Your task to perform on an android device: What's the weather today? Image 0: 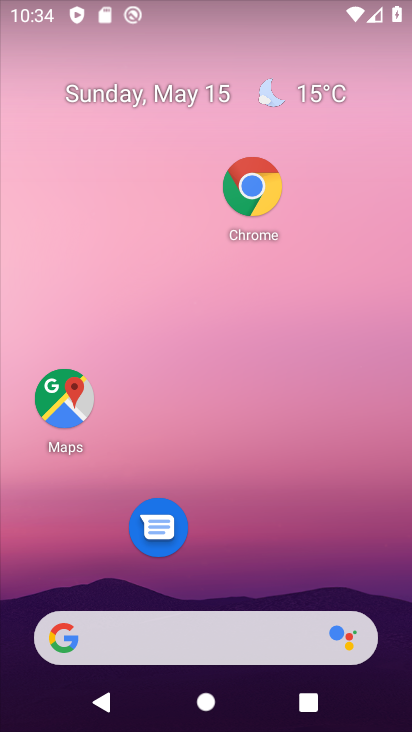
Step 0: click (209, 638)
Your task to perform on an android device: What's the weather today? Image 1: 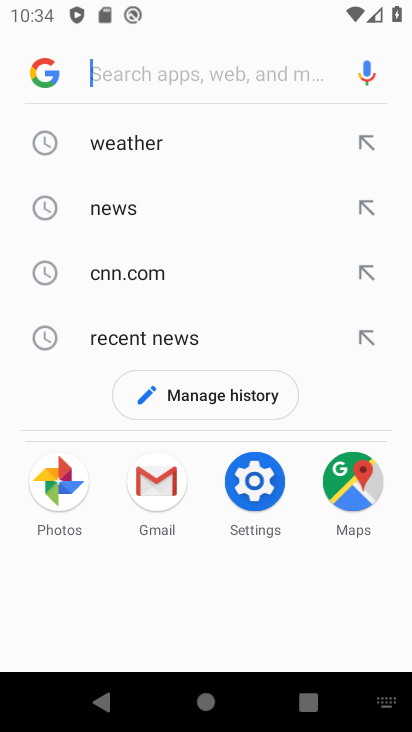
Step 1: click (135, 136)
Your task to perform on an android device: What's the weather today? Image 2: 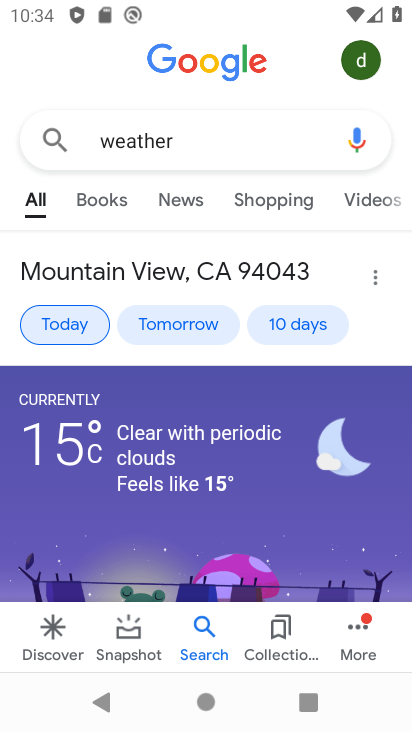
Step 2: drag from (297, 432) to (304, 238)
Your task to perform on an android device: What's the weather today? Image 3: 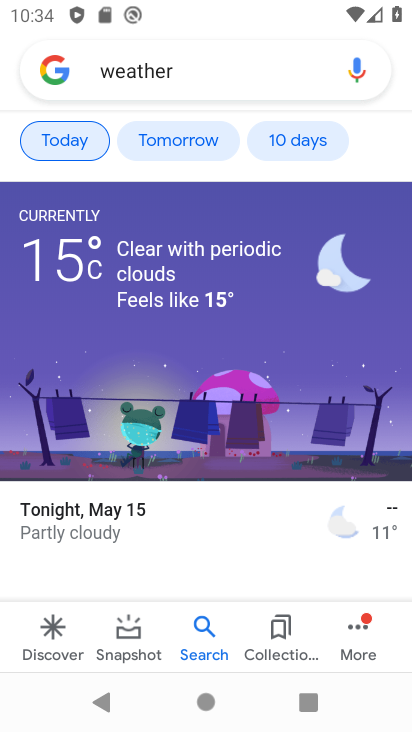
Step 3: click (261, 308)
Your task to perform on an android device: What's the weather today? Image 4: 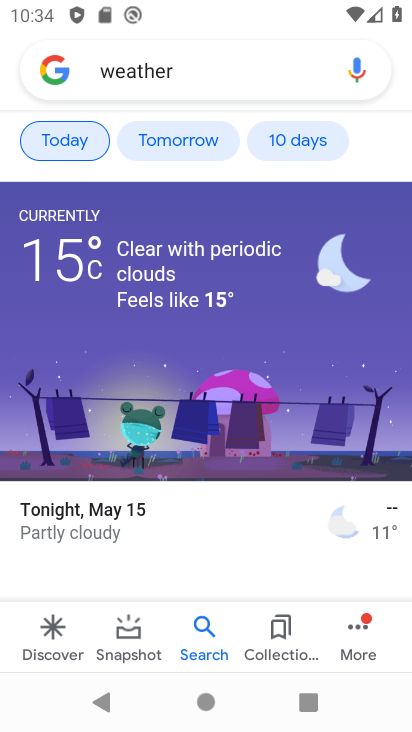
Step 4: task complete